Your task to perform on an android device: Open the calendar and show me this week's events Image 0: 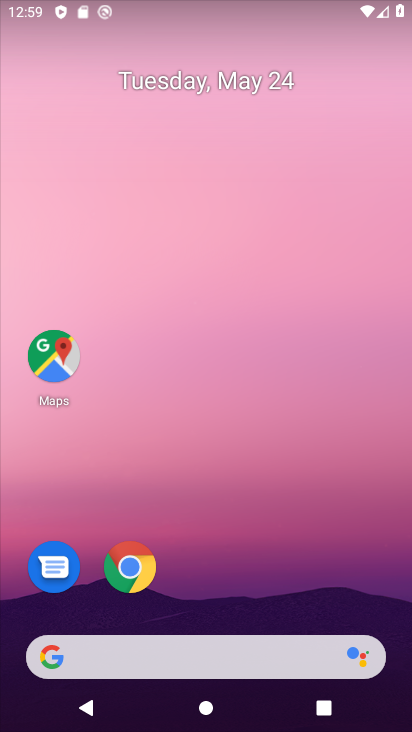
Step 0: drag from (221, 605) to (304, 52)
Your task to perform on an android device: Open the calendar and show me this week's events Image 1: 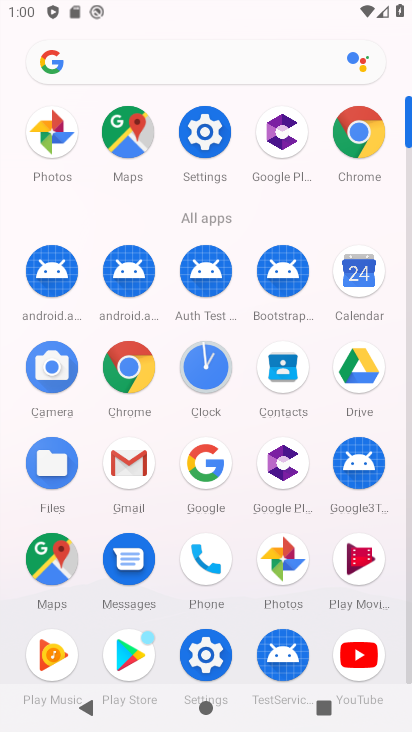
Step 1: click (363, 276)
Your task to perform on an android device: Open the calendar and show me this week's events Image 2: 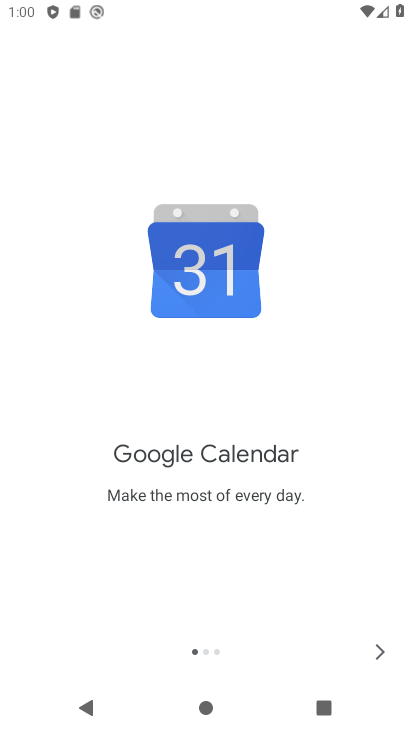
Step 2: click (385, 639)
Your task to perform on an android device: Open the calendar and show me this week's events Image 3: 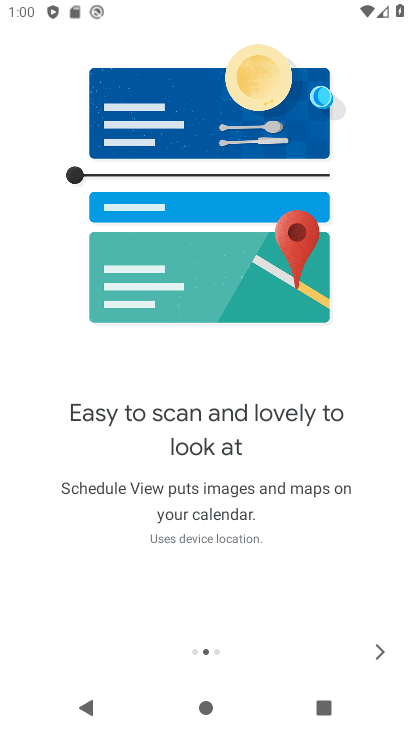
Step 3: click (385, 639)
Your task to perform on an android device: Open the calendar and show me this week's events Image 4: 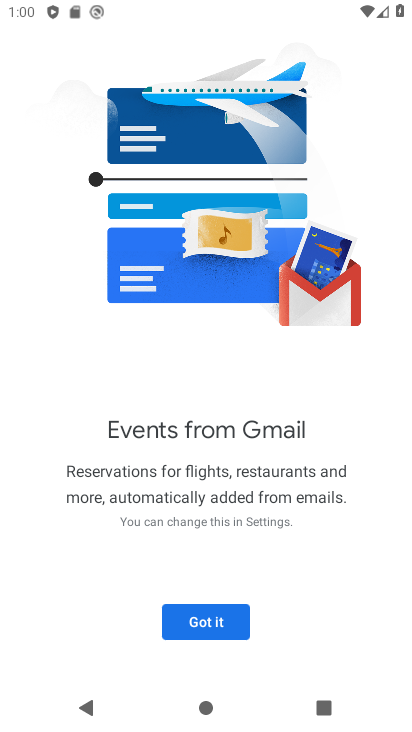
Step 4: click (228, 628)
Your task to perform on an android device: Open the calendar and show me this week's events Image 5: 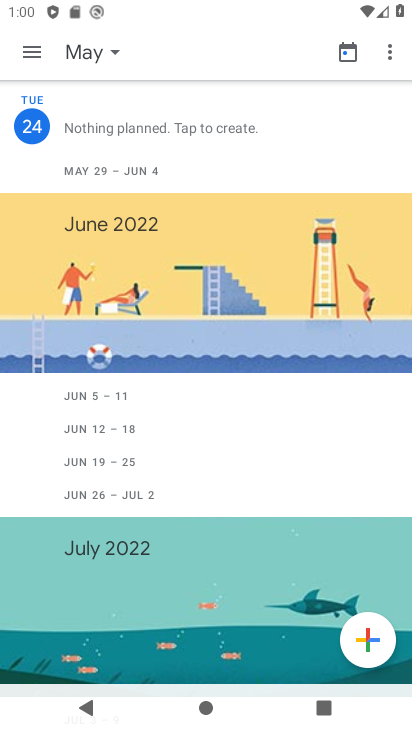
Step 5: click (36, 55)
Your task to perform on an android device: Open the calendar and show me this week's events Image 6: 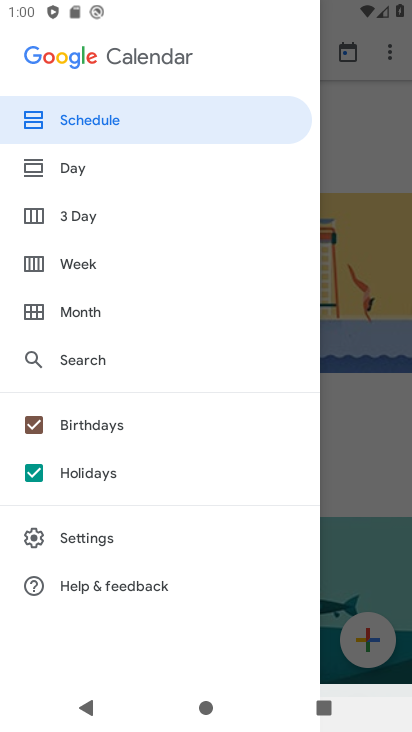
Step 6: click (80, 270)
Your task to perform on an android device: Open the calendar and show me this week's events Image 7: 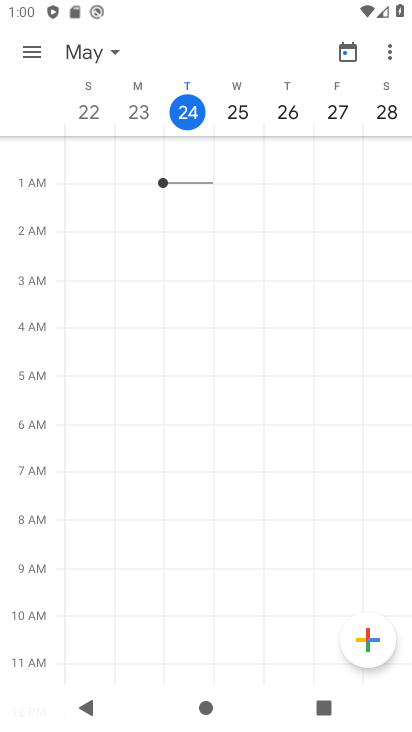
Step 7: task complete